Your task to perform on an android device: install app "ColorNote Notepad Notes" Image 0: 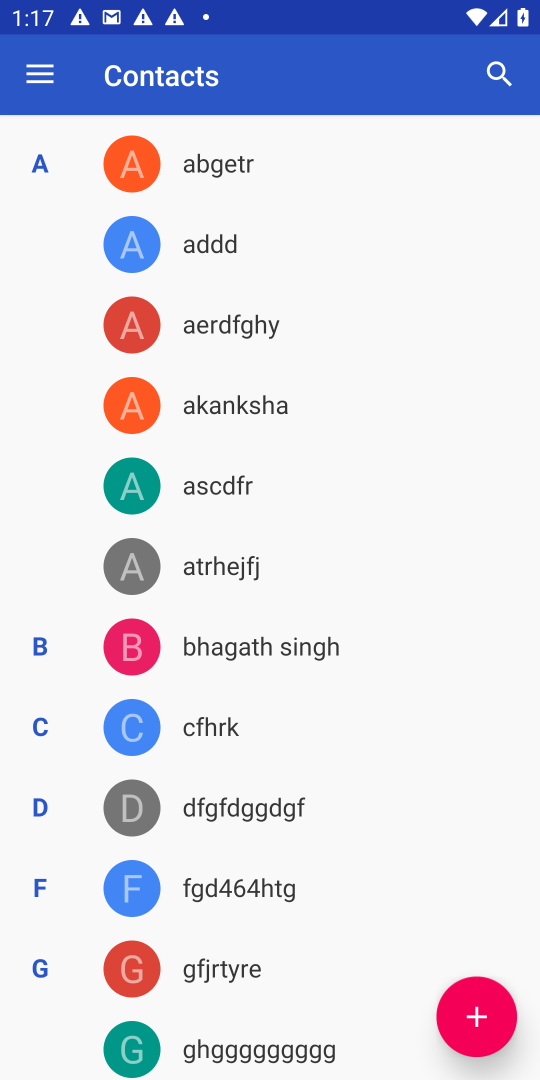
Step 0: press home button
Your task to perform on an android device: install app "ColorNote Notepad Notes" Image 1: 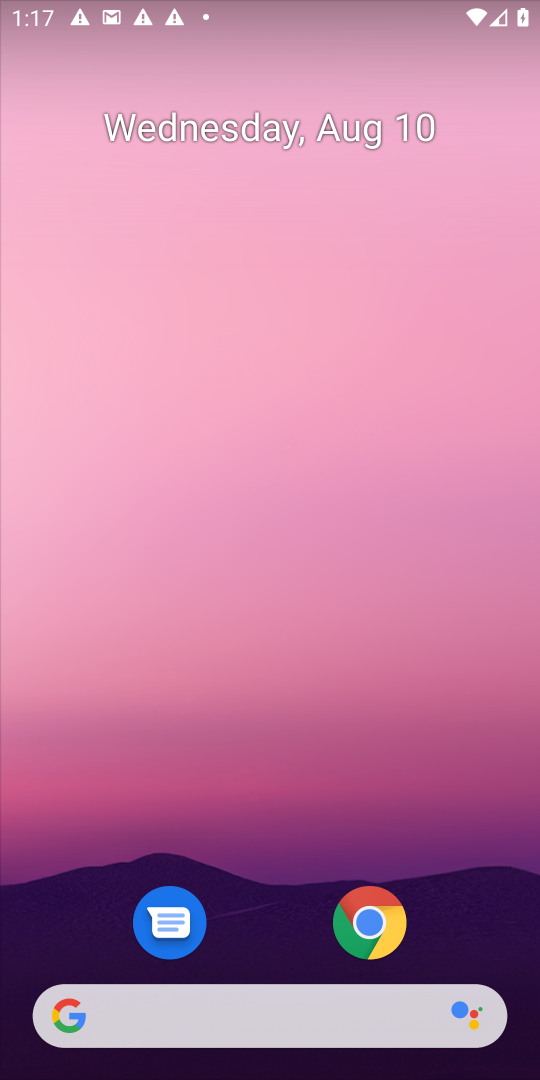
Step 1: drag from (275, 940) to (202, 144)
Your task to perform on an android device: install app "ColorNote Notepad Notes" Image 2: 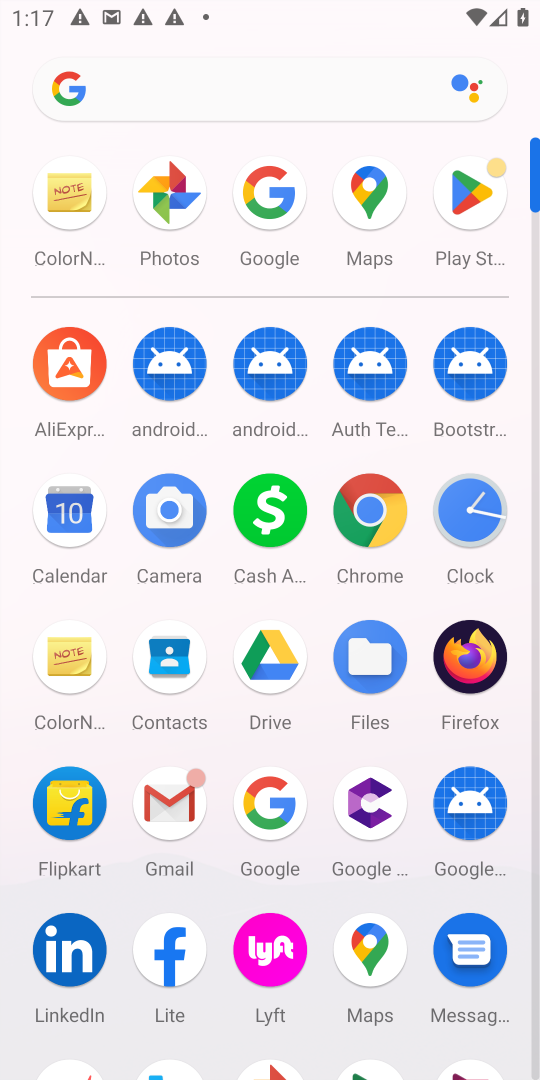
Step 2: click (469, 196)
Your task to perform on an android device: install app "ColorNote Notepad Notes" Image 3: 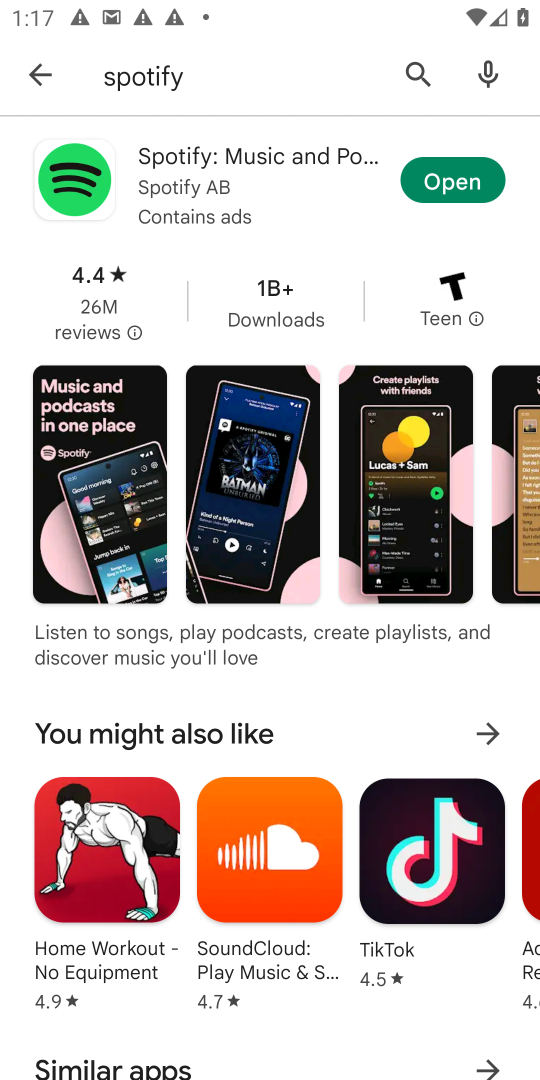
Step 3: click (39, 68)
Your task to perform on an android device: install app "ColorNote Notepad Notes" Image 4: 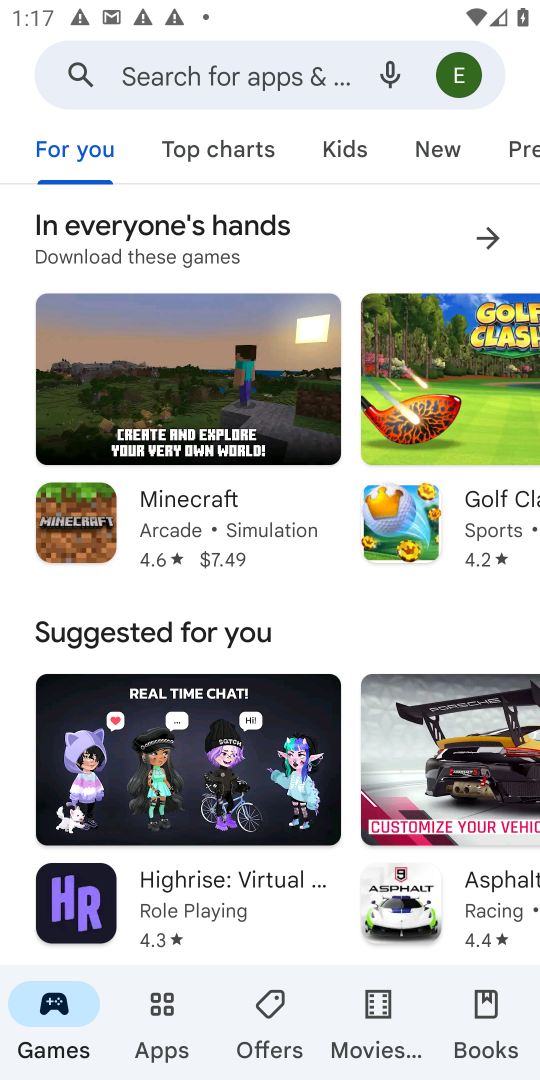
Step 4: click (188, 75)
Your task to perform on an android device: install app "ColorNote Notepad Notes" Image 5: 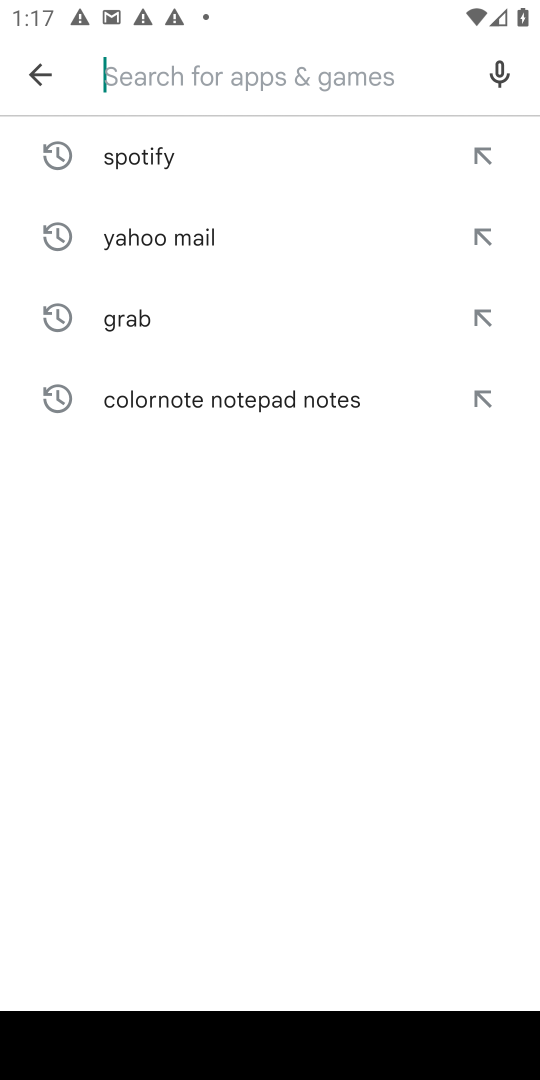
Step 5: type "ColorNote Notepad Notes"
Your task to perform on an android device: install app "ColorNote Notepad Notes" Image 6: 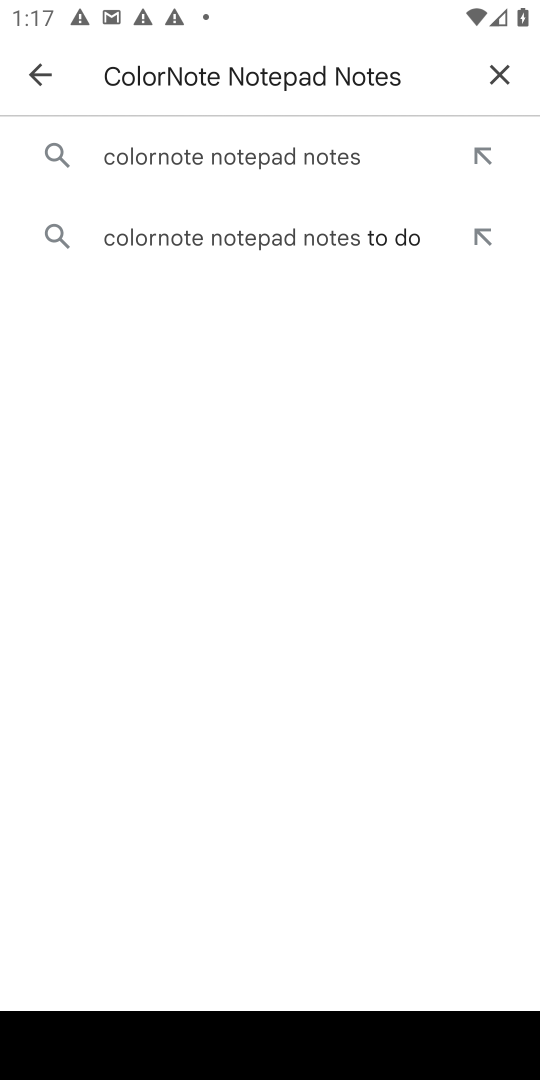
Step 6: click (235, 161)
Your task to perform on an android device: install app "ColorNote Notepad Notes" Image 7: 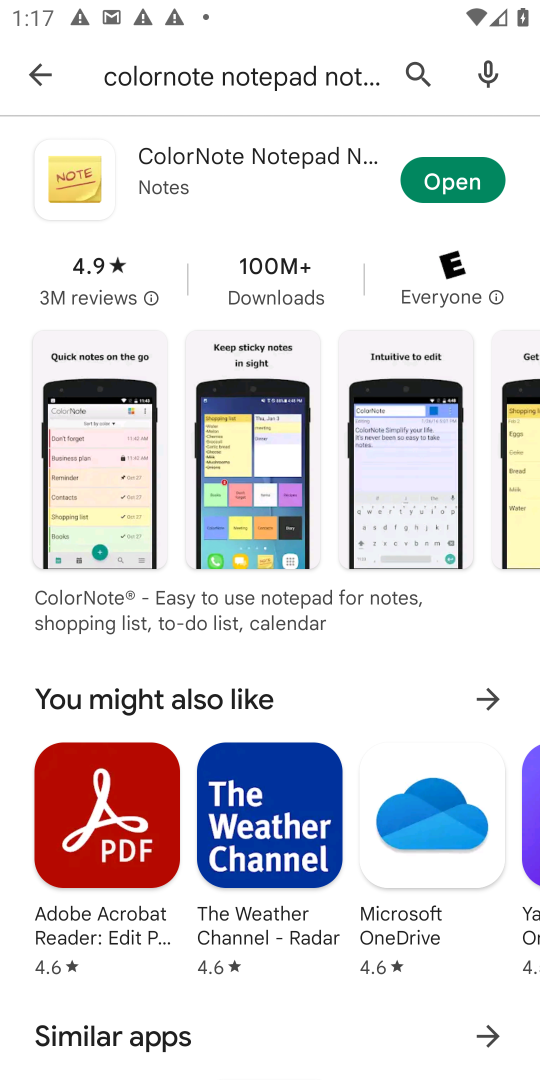
Step 7: task complete